Your task to perform on an android device: Open internet settings Image 0: 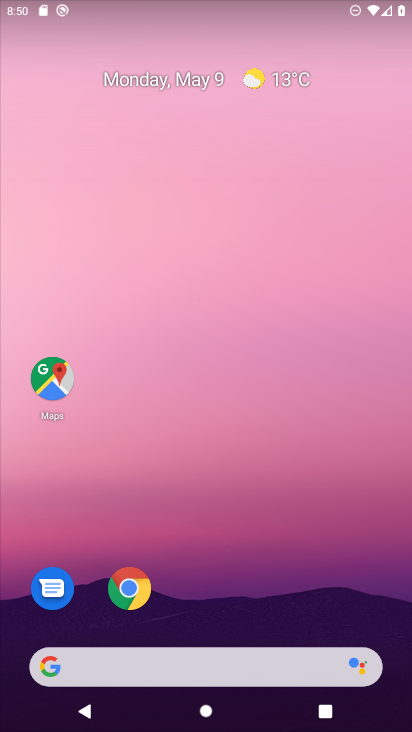
Step 0: drag from (269, 582) to (230, 21)
Your task to perform on an android device: Open internet settings Image 1: 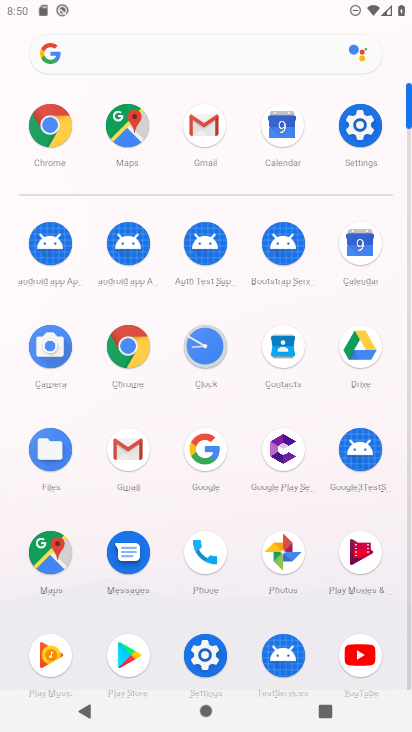
Step 1: click (367, 136)
Your task to perform on an android device: Open internet settings Image 2: 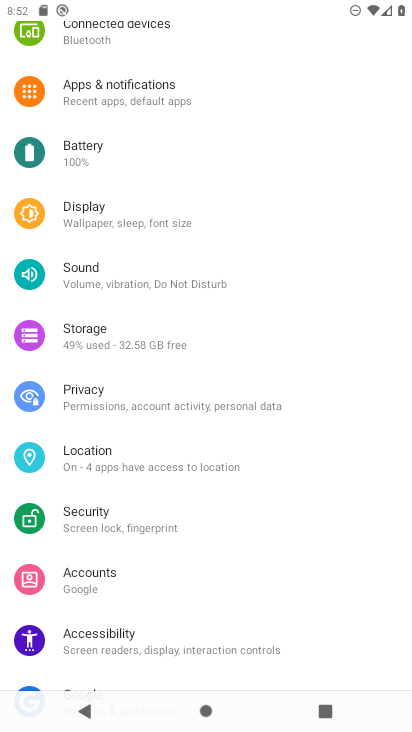
Step 2: drag from (181, 564) to (223, 726)
Your task to perform on an android device: Open internet settings Image 3: 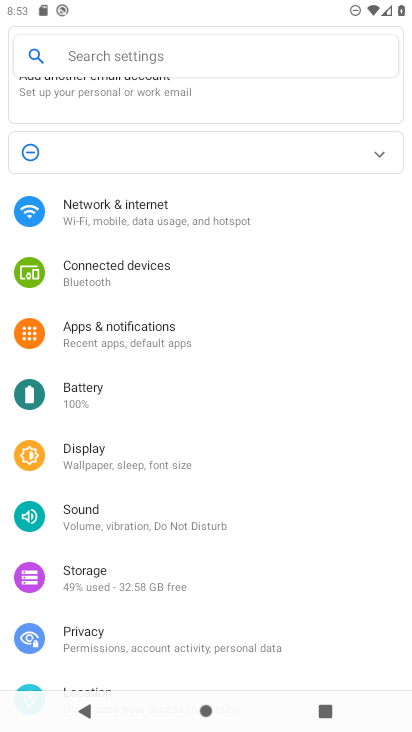
Step 3: click (225, 204)
Your task to perform on an android device: Open internet settings Image 4: 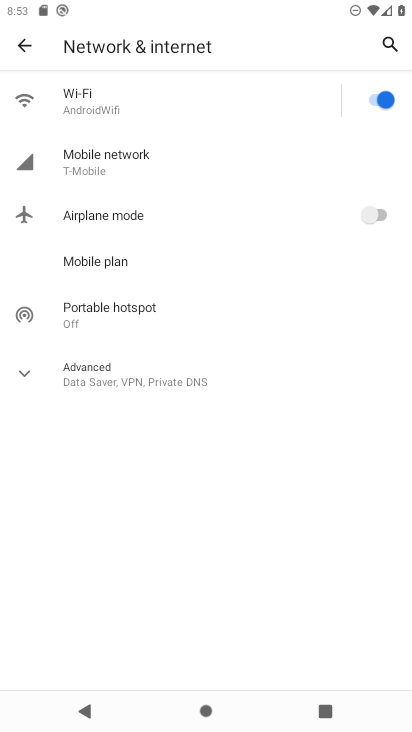
Step 4: task complete